Your task to perform on an android device: empty trash in google photos Image 0: 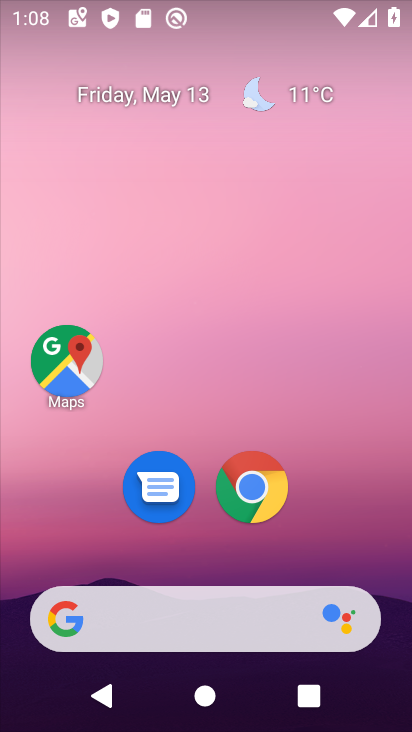
Step 0: drag from (310, 413) to (308, 103)
Your task to perform on an android device: empty trash in google photos Image 1: 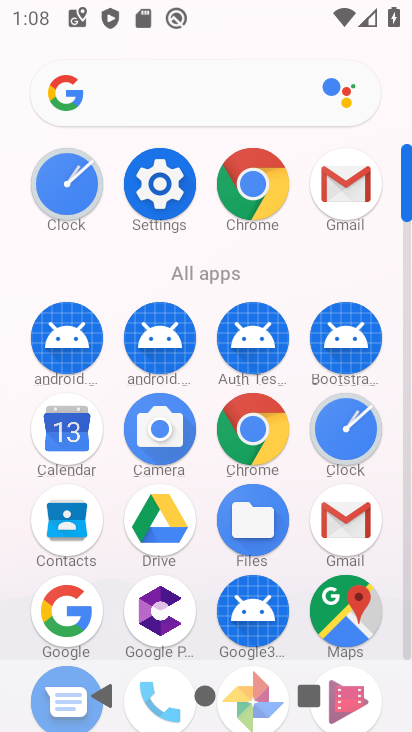
Step 1: drag from (224, 607) to (224, 237)
Your task to perform on an android device: empty trash in google photos Image 2: 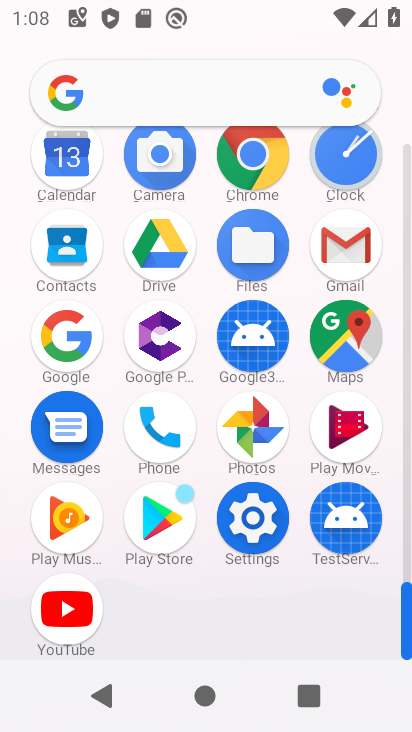
Step 2: click (251, 446)
Your task to perform on an android device: empty trash in google photos Image 3: 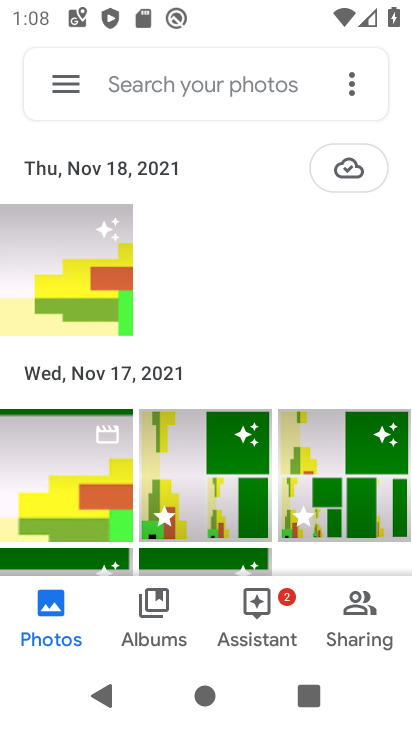
Step 3: click (70, 84)
Your task to perform on an android device: empty trash in google photos Image 4: 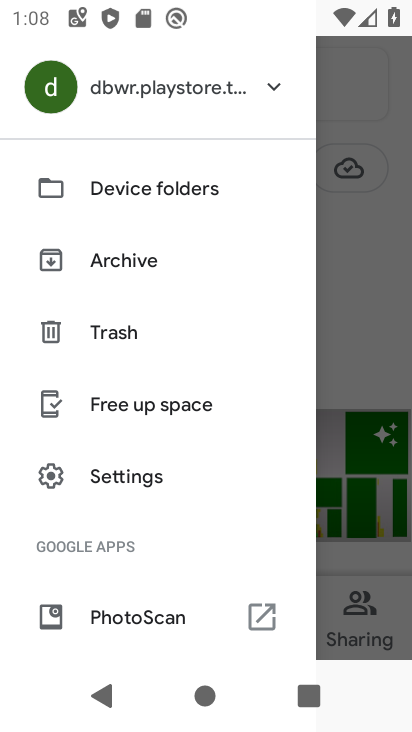
Step 4: click (132, 341)
Your task to perform on an android device: empty trash in google photos Image 5: 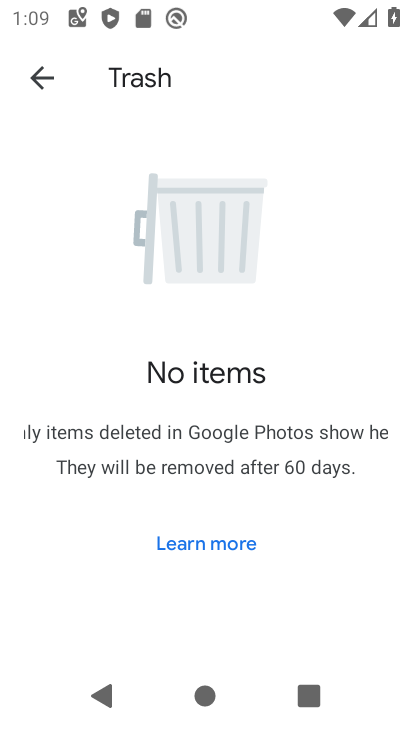
Step 5: task complete